Your task to perform on an android device: Go to settings Image 0: 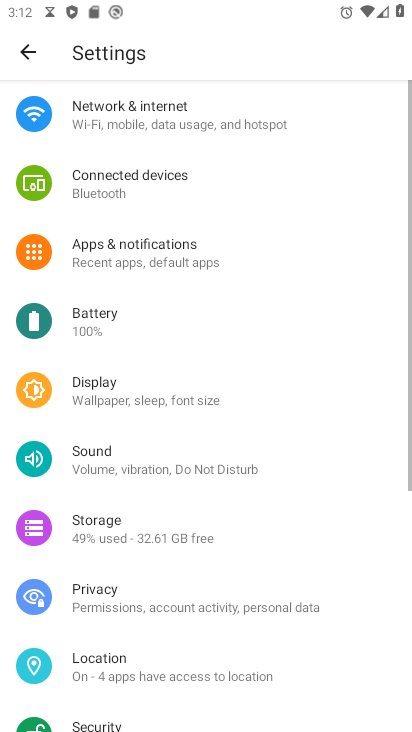
Step 0: press home button
Your task to perform on an android device: Go to settings Image 1: 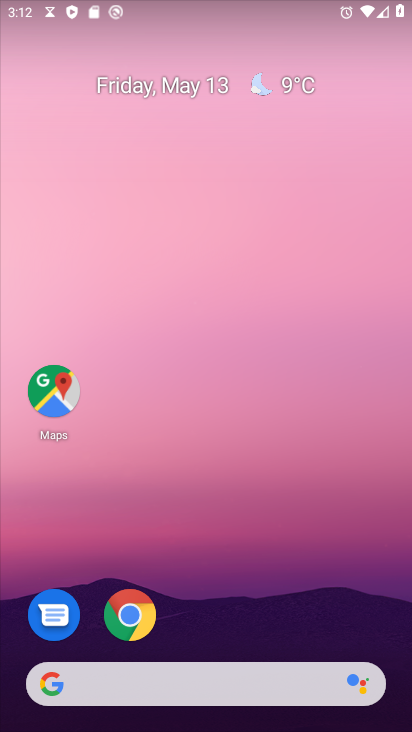
Step 1: drag from (205, 720) to (204, 267)
Your task to perform on an android device: Go to settings Image 2: 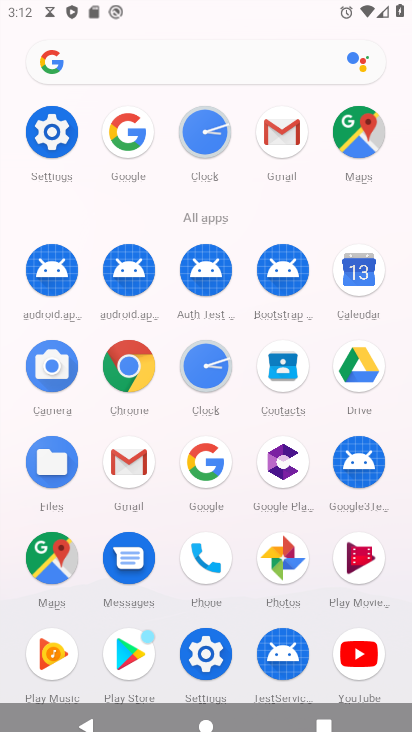
Step 2: click (203, 649)
Your task to perform on an android device: Go to settings Image 3: 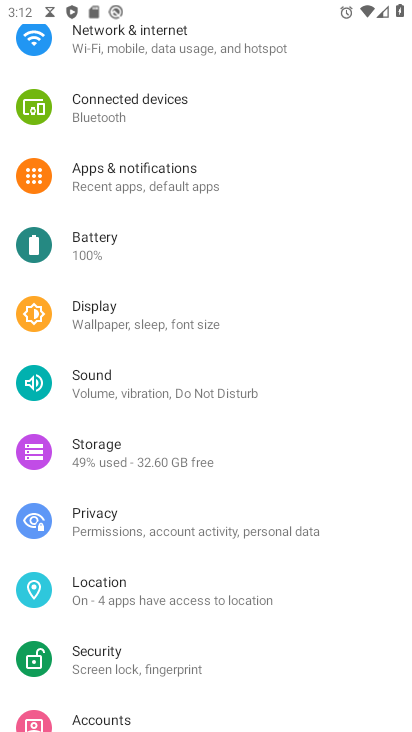
Step 3: task complete